Your task to perform on an android device: turn on showing notifications on the lock screen Image 0: 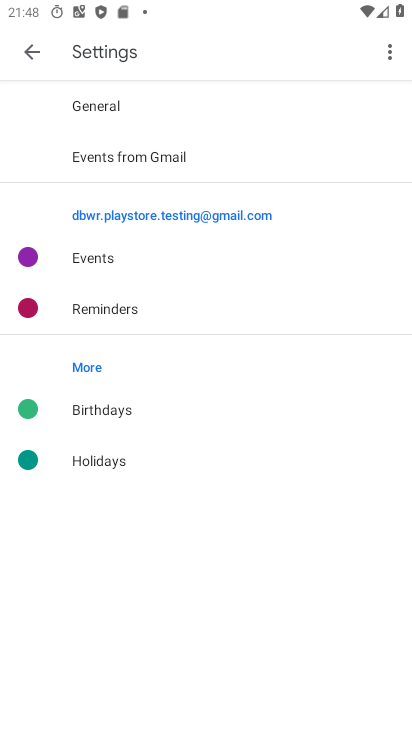
Step 0: press home button
Your task to perform on an android device: turn on showing notifications on the lock screen Image 1: 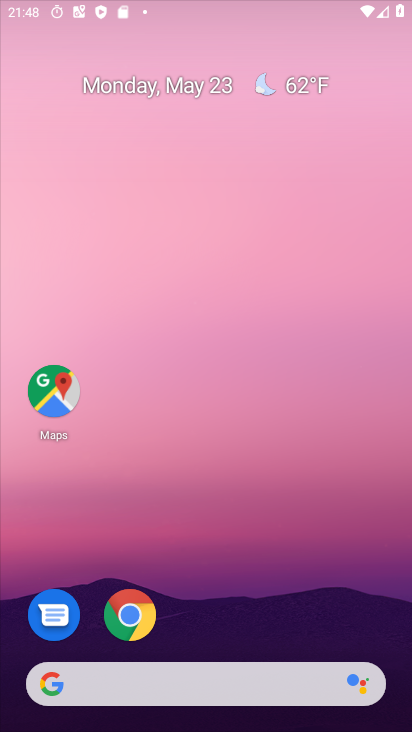
Step 1: drag from (225, 610) to (244, 95)
Your task to perform on an android device: turn on showing notifications on the lock screen Image 2: 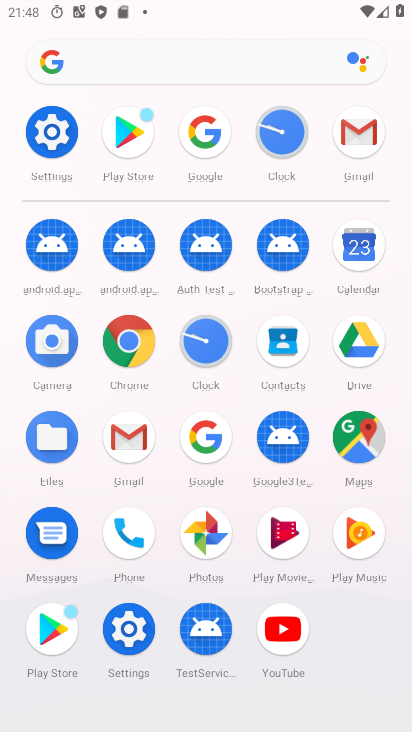
Step 2: click (68, 131)
Your task to perform on an android device: turn on showing notifications on the lock screen Image 3: 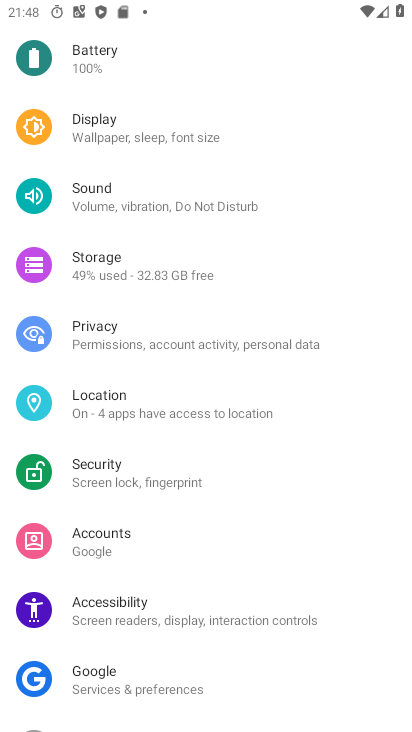
Step 3: drag from (185, 128) to (293, 627)
Your task to perform on an android device: turn on showing notifications on the lock screen Image 4: 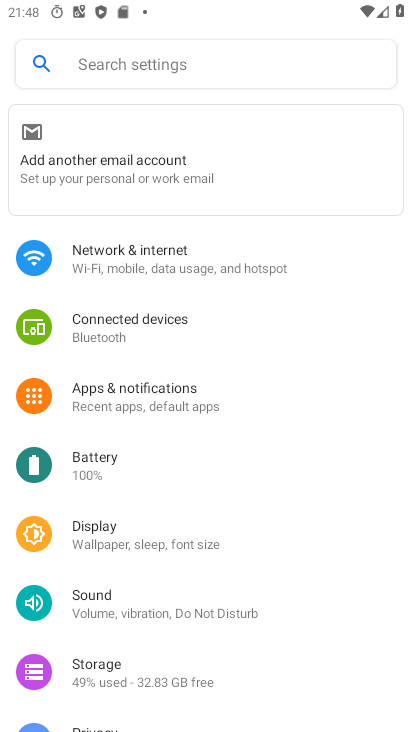
Step 4: click (134, 397)
Your task to perform on an android device: turn on showing notifications on the lock screen Image 5: 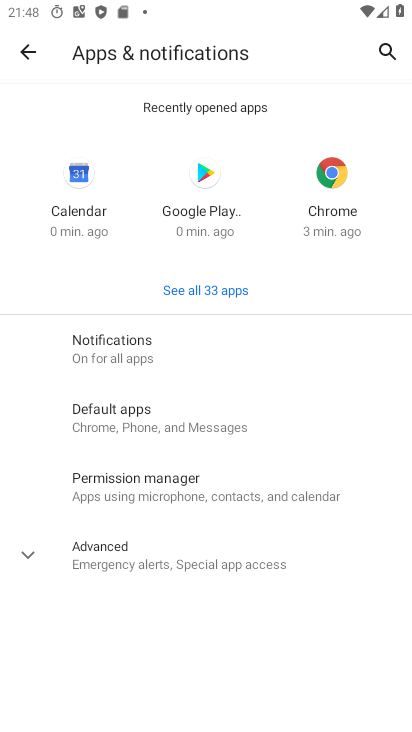
Step 5: click (163, 364)
Your task to perform on an android device: turn on showing notifications on the lock screen Image 6: 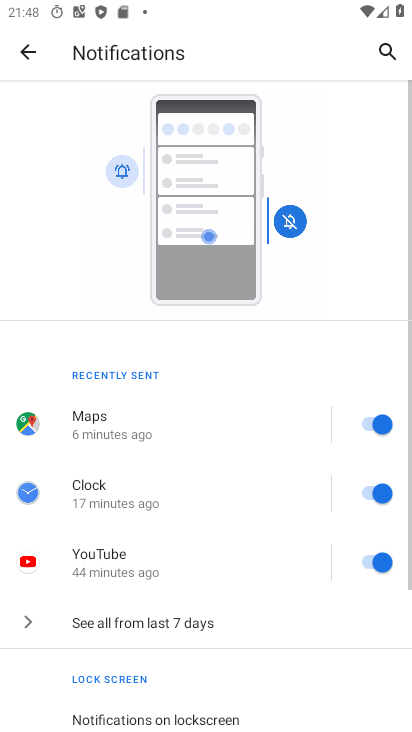
Step 6: drag from (237, 612) to (252, 268)
Your task to perform on an android device: turn on showing notifications on the lock screen Image 7: 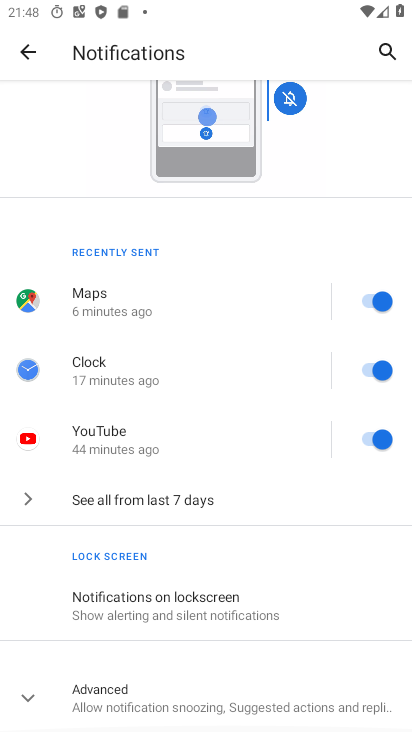
Step 7: click (164, 583)
Your task to perform on an android device: turn on showing notifications on the lock screen Image 8: 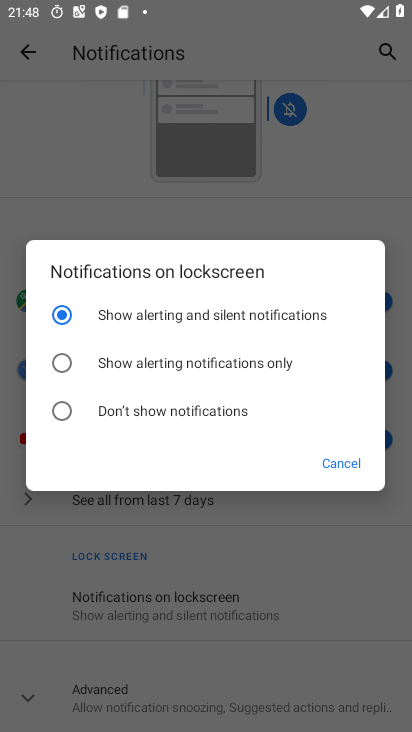
Step 8: task complete